Your task to perform on an android device: When is my next meeting? Image 0: 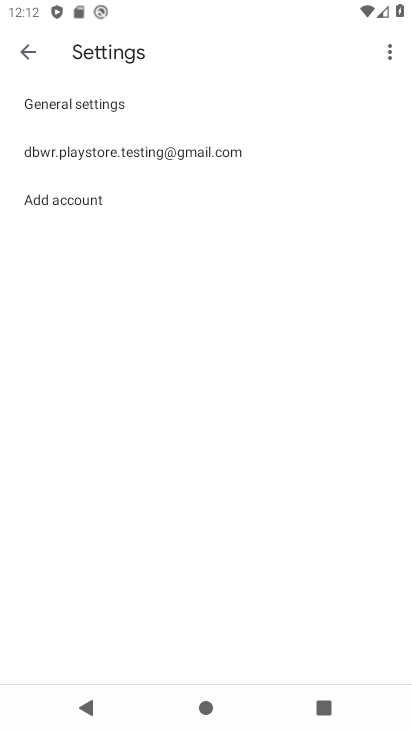
Step 0: press home button
Your task to perform on an android device: When is my next meeting? Image 1: 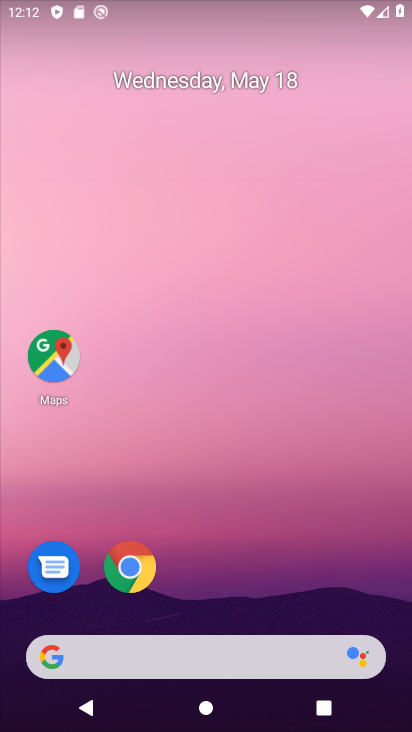
Step 1: drag from (294, 581) to (307, 167)
Your task to perform on an android device: When is my next meeting? Image 2: 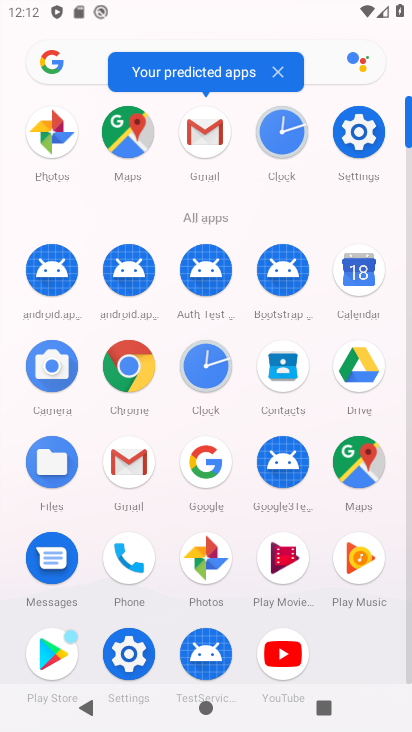
Step 2: click (352, 279)
Your task to perform on an android device: When is my next meeting? Image 3: 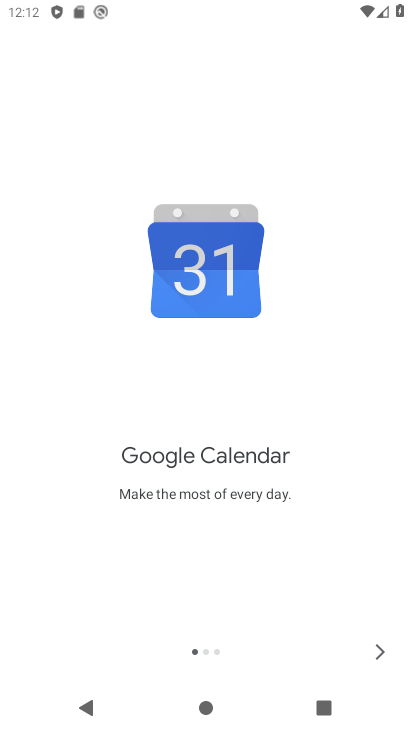
Step 3: click (377, 653)
Your task to perform on an android device: When is my next meeting? Image 4: 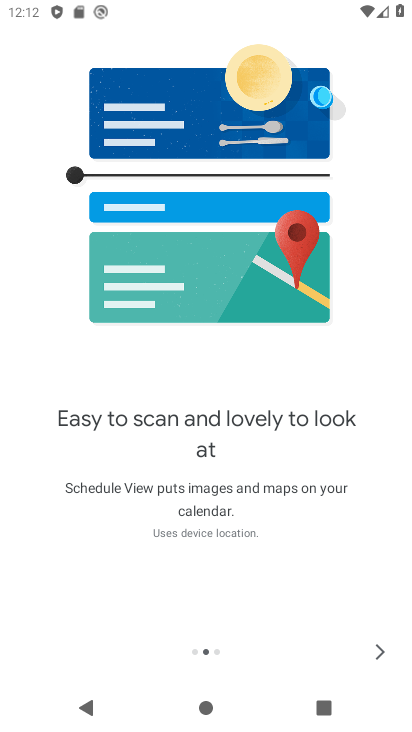
Step 4: click (376, 653)
Your task to perform on an android device: When is my next meeting? Image 5: 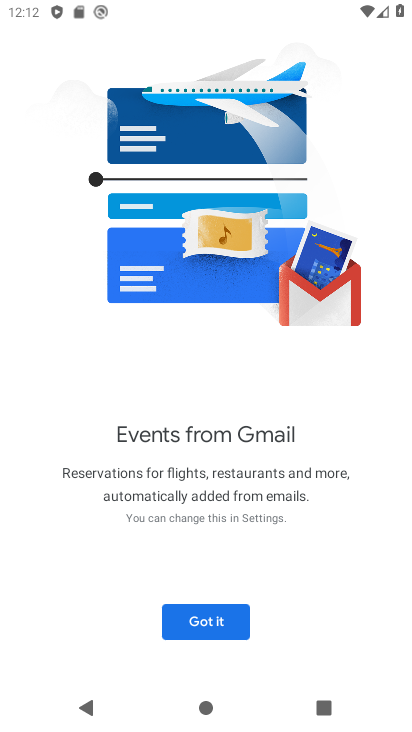
Step 5: click (228, 629)
Your task to perform on an android device: When is my next meeting? Image 6: 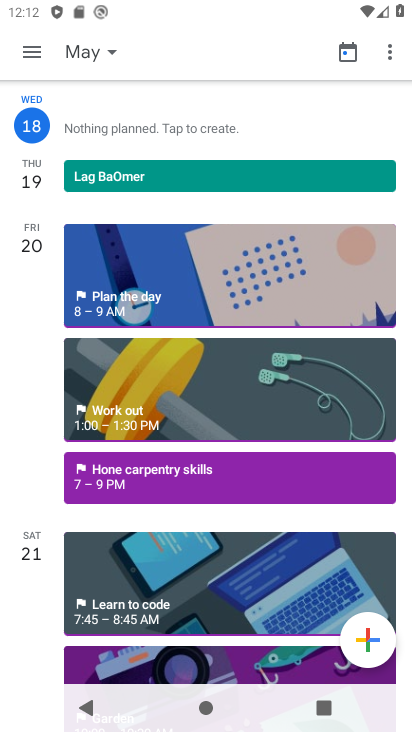
Step 6: drag from (37, 604) to (70, 283)
Your task to perform on an android device: When is my next meeting? Image 7: 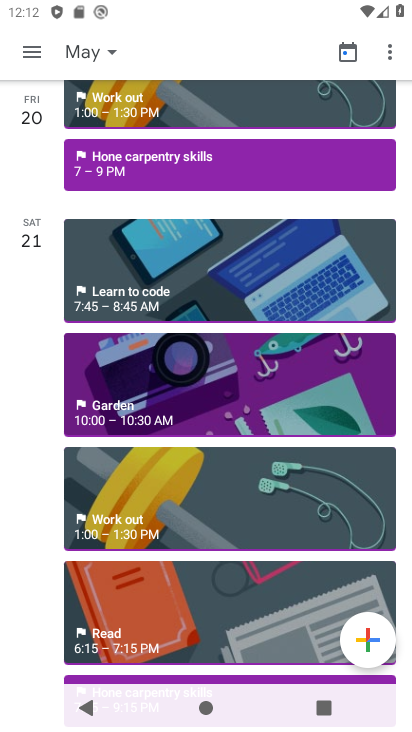
Step 7: drag from (25, 582) to (95, 199)
Your task to perform on an android device: When is my next meeting? Image 8: 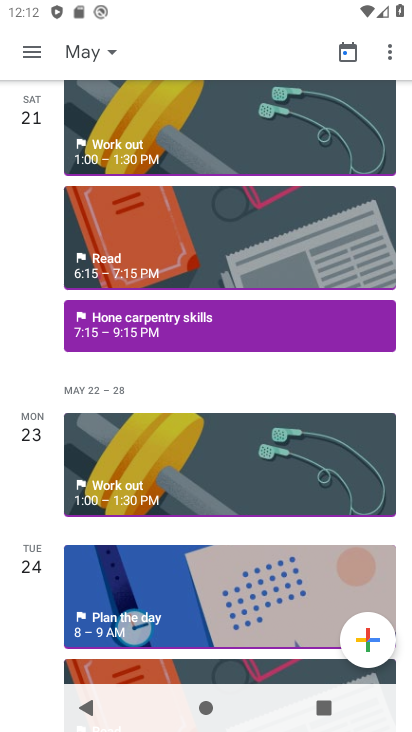
Step 8: drag from (32, 621) to (111, 144)
Your task to perform on an android device: When is my next meeting? Image 9: 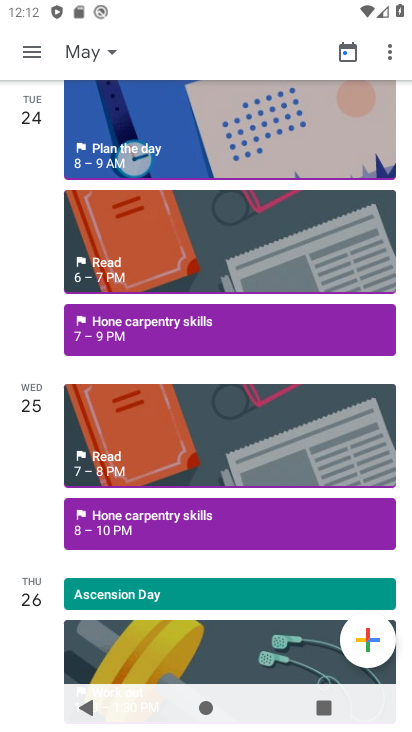
Step 9: drag from (41, 717) to (88, 196)
Your task to perform on an android device: When is my next meeting? Image 10: 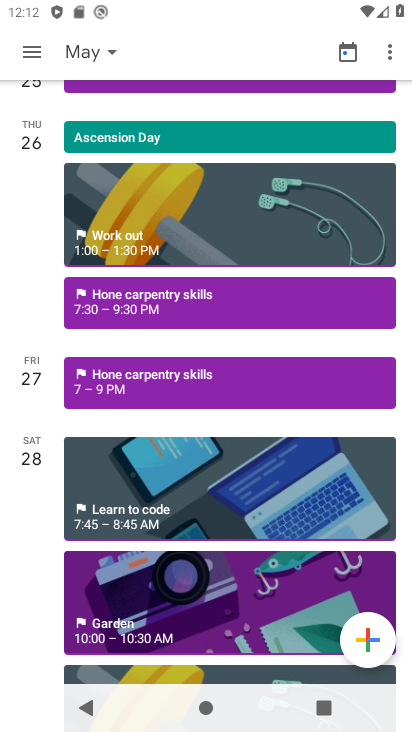
Step 10: drag from (63, 646) to (174, 195)
Your task to perform on an android device: When is my next meeting? Image 11: 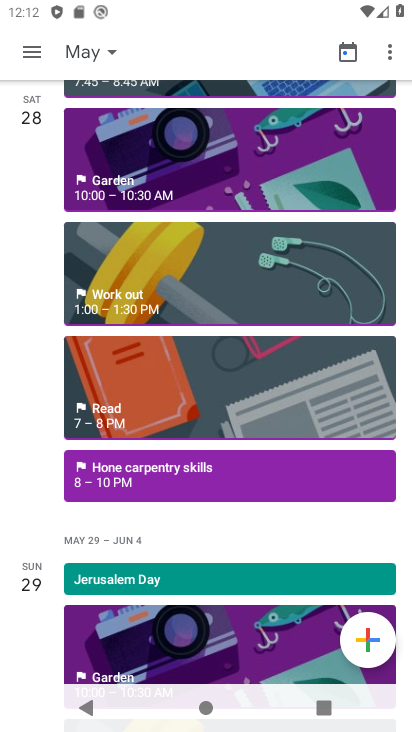
Step 11: drag from (100, 568) to (164, 186)
Your task to perform on an android device: When is my next meeting? Image 12: 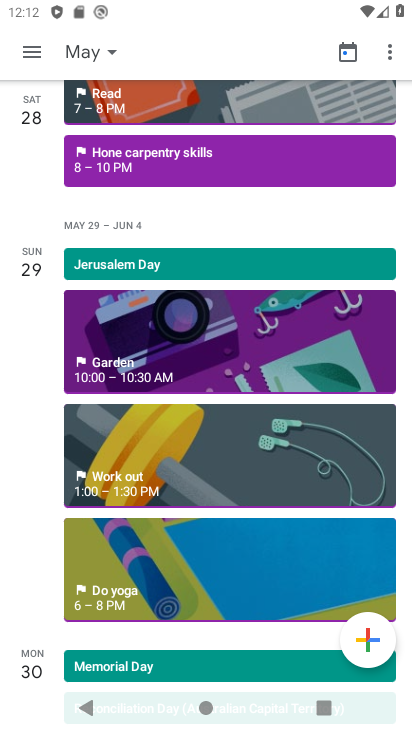
Step 12: drag from (107, 633) to (186, 272)
Your task to perform on an android device: When is my next meeting? Image 13: 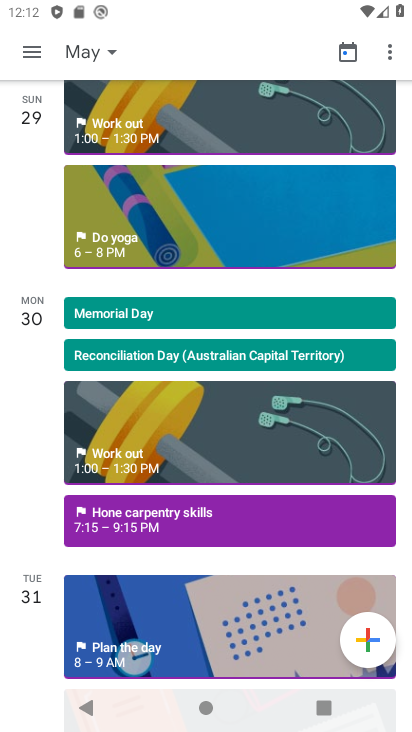
Step 13: drag from (121, 612) to (234, 187)
Your task to perform on an android device: When is my next meeting? Image 14: 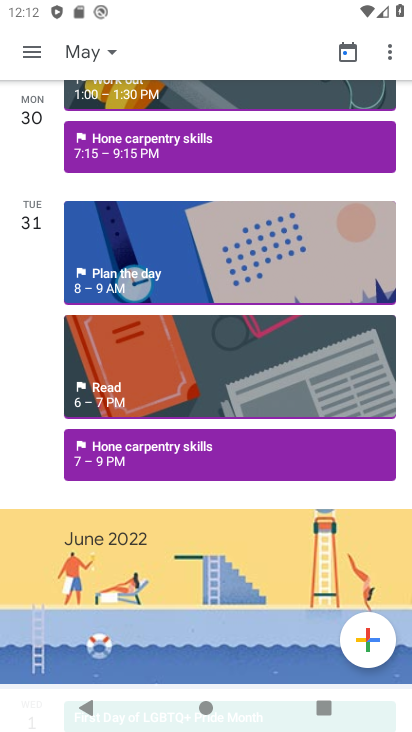
Step 14: drag from (116, 480) to (216, 152)
Your task to perform on an android device: When is my next meeting? Image 15: 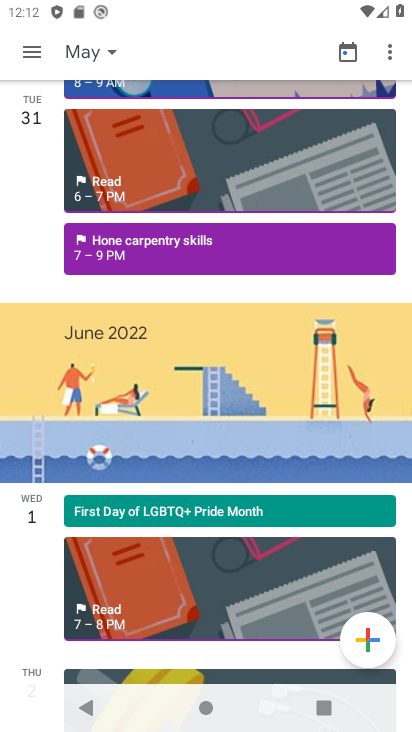
Step 15: drag from (69, 581) to (167, 247)
Your task to perform on an android device: When is my next meeting? Image 16: 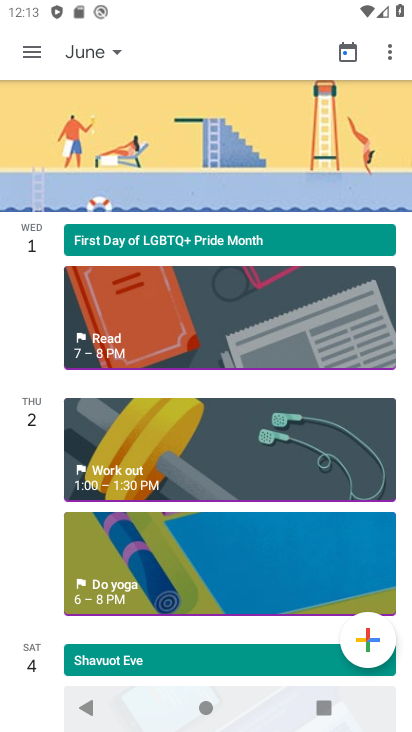
Step 16: drag from (111, 543) to (209, 154)
Your task to perform on an android device: When is my next meeting? Image 17: 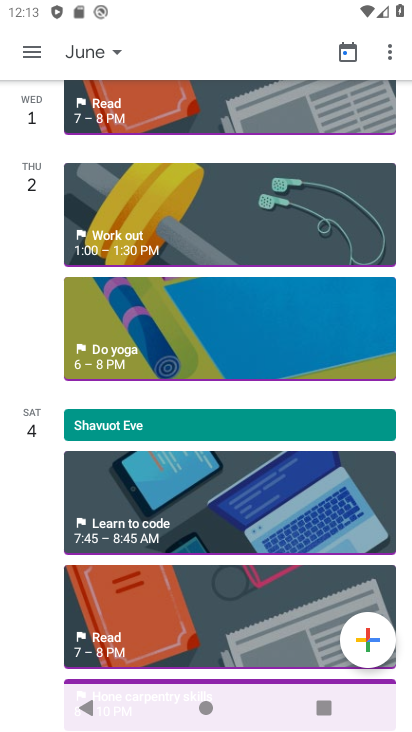
Step 17: drag from (62, 627) to (155, 130)
Your task to perform on an android device: When is my next meeting? Image 18: 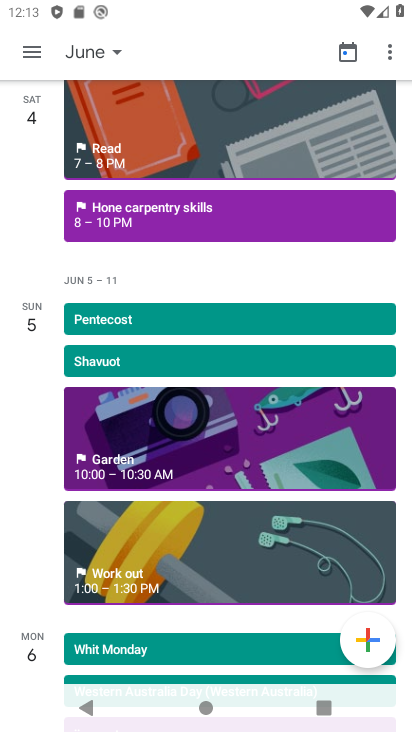
Step 18: drag from (81, 502) to (153, 183)
Your task to perform on an android device: When is my next meeting? Image 19: 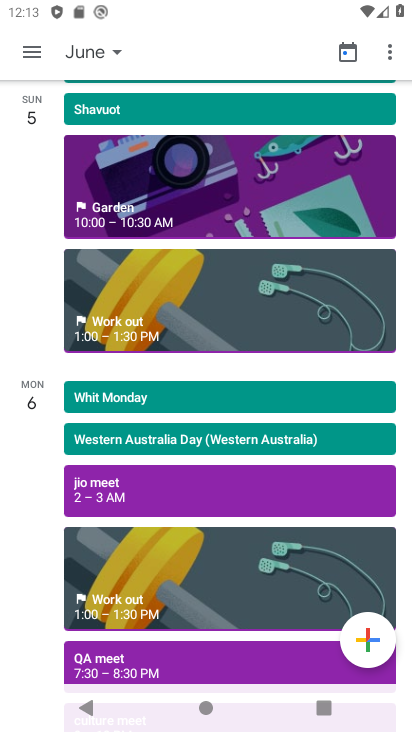
Step 19: click (77, 476)
Your task to perform on an android device: When is my next meeting? Image 20: 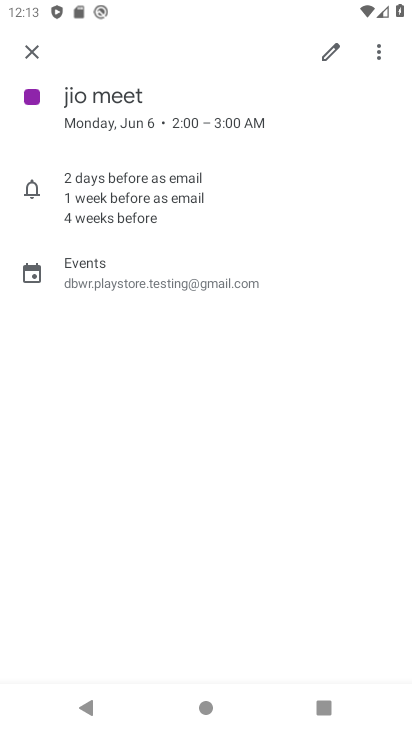
Step 20: task complete